Your task to perform on an android device: Go to network settings Image 0: 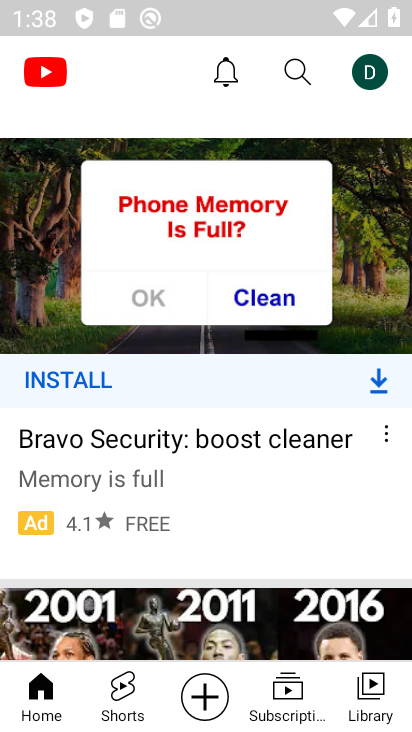
Step 0: press home button
Your task to perform on an android device: Go to network settings Image 1: 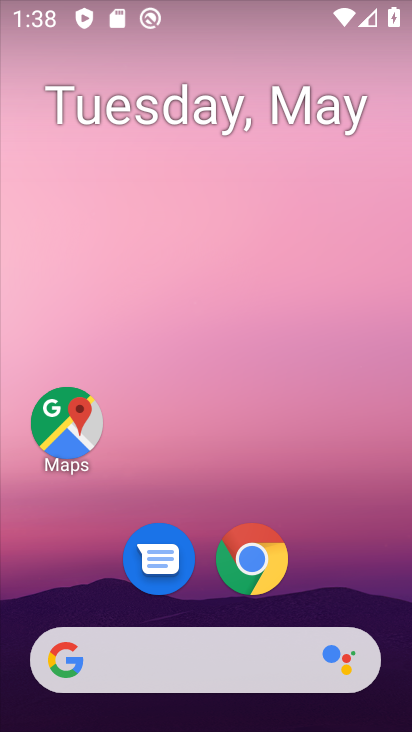
Step 1: drag from (394, 615) to (310, 70)
Your task to perform on an android device: Go to network settings Image 2: 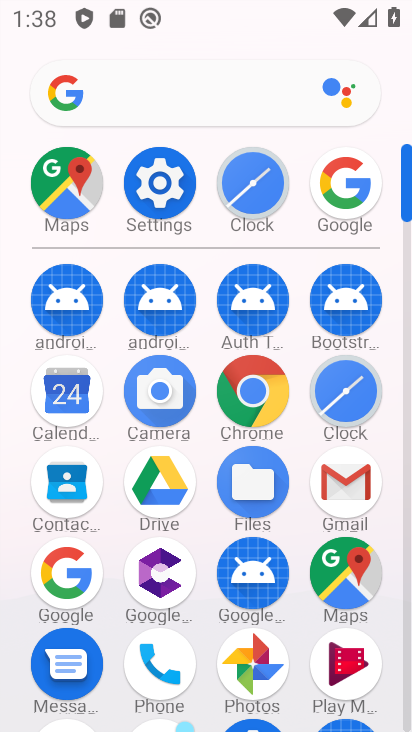
Step 2: click (180, 187)
Your task to perform on an android device: Go to network settings Image 3: 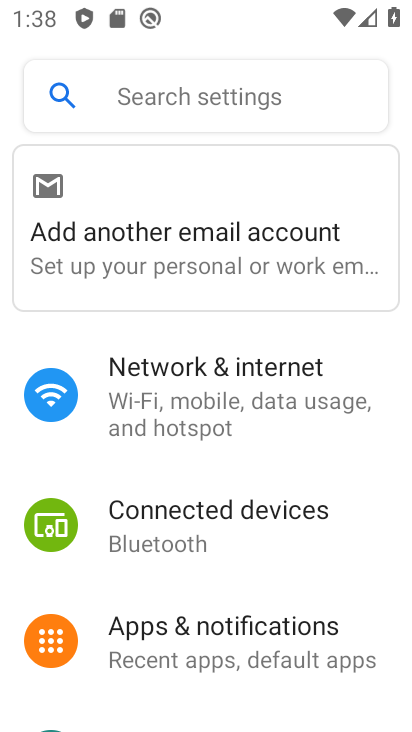
Step 3: click (227, 442)
Your task to perform on an android device: Go to network settings Image 4: 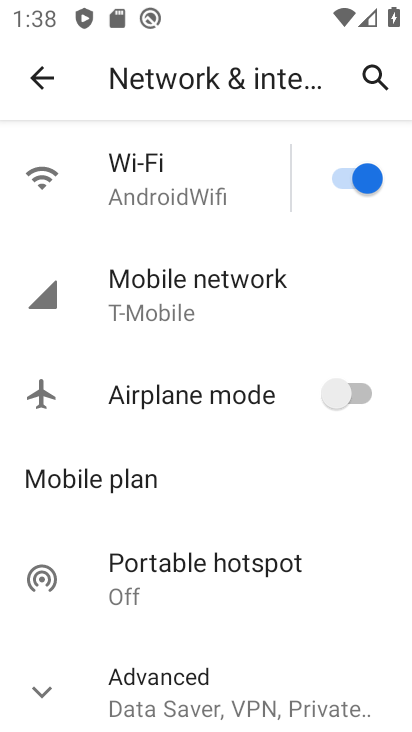
Step 4: task complete